Your task to perform on an android device: Go to display settings Image 0: 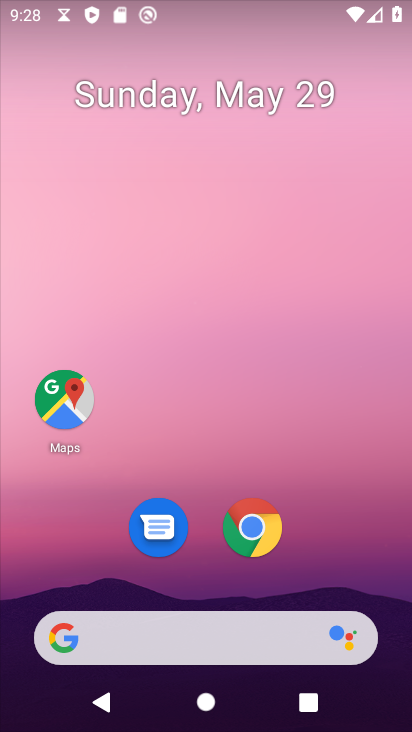
Step 0: drag from (194, 607) to (315, 147)
Your task to perform on an android device: Go to display settings Image 1: 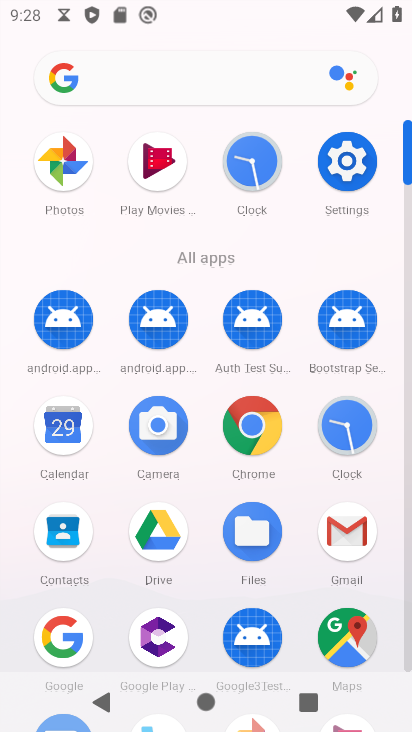
Step 1: click (333, 165)
Your task to perform on an android device: Go to display settings Image 2: 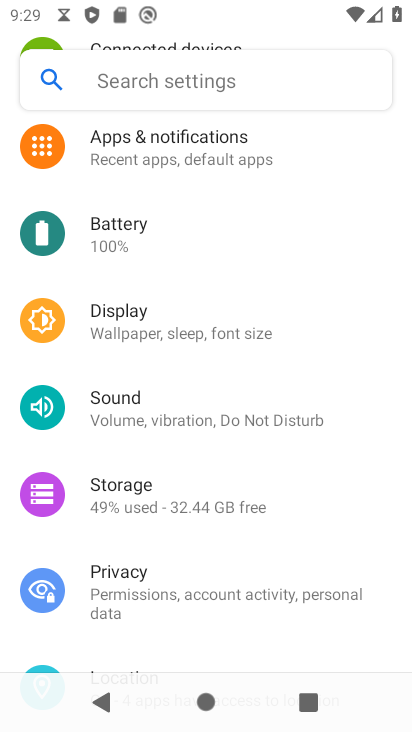
Step 2: click (120, 321)
Your task to perform on an android device: Go to display settings Image 3: 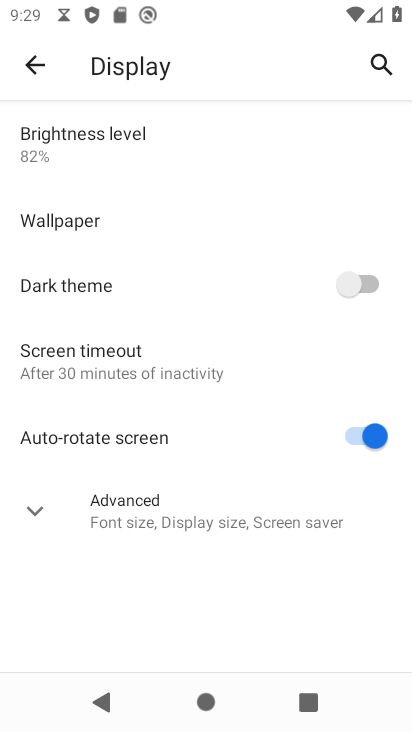
Step 3: task complete